Your task to perform on an android device: What is the recent news? Image 0: 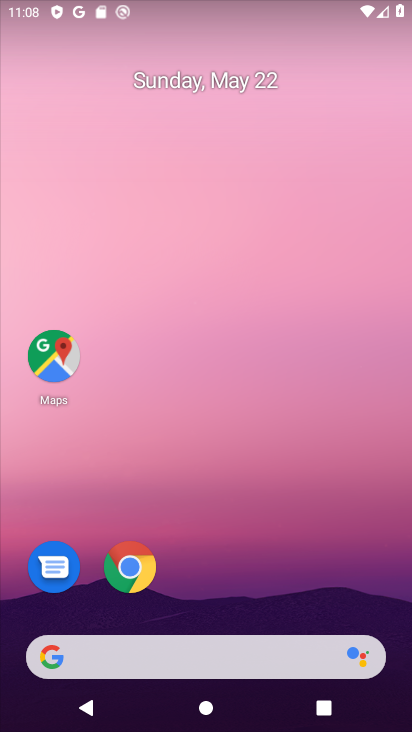
Step 0: click (193, 648)
Your task to perform on an android device: What is the recent news? Image 1: 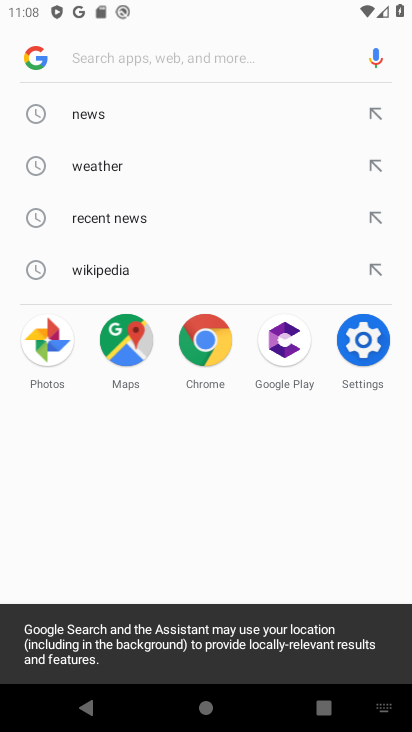
Step 1: click (148, 222)
Your task to perform on an android device: What is the recent news? Image 2: 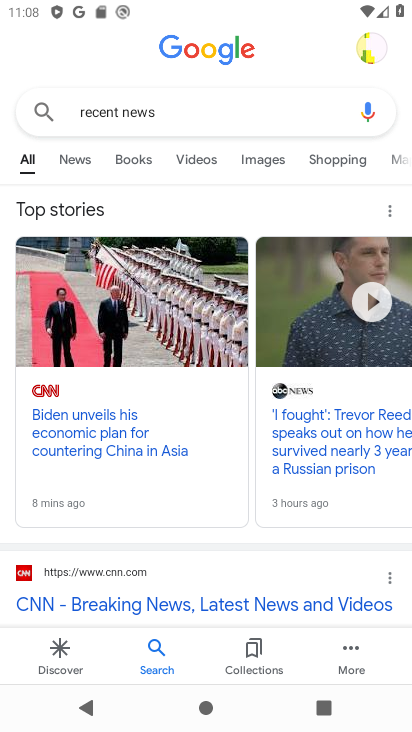
Step 2: task complete